Your task to perform on an android device: change text size in settings app Image 0: 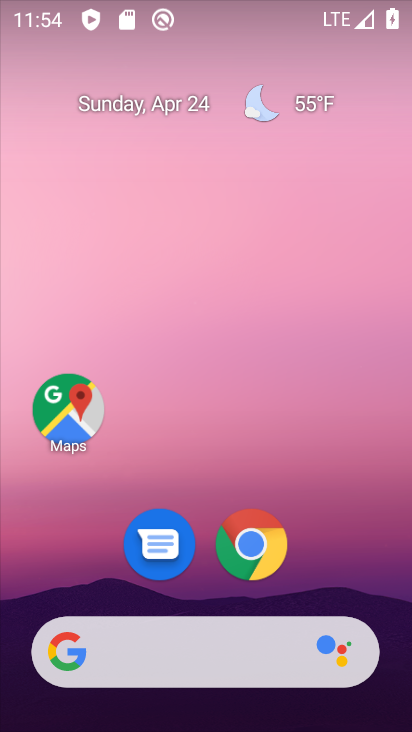
Step 0: drag from (329, 567) to (231, 211)
Your task to perform on an android device: change text size in settings app Image 1: 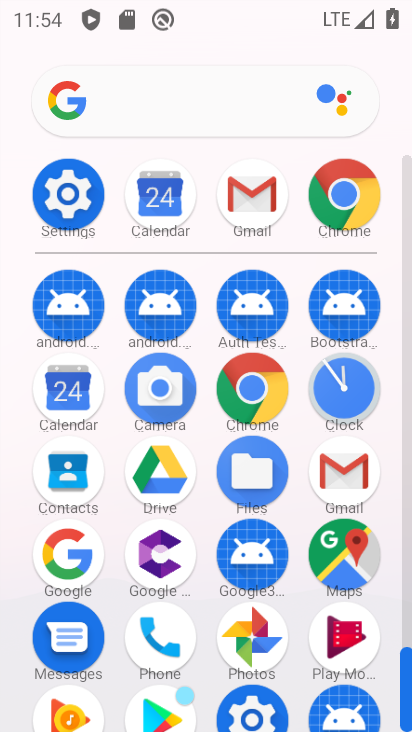
Step 1: click (102, 195)
Your task to perform on an android device: change text size in settings app Image 2: 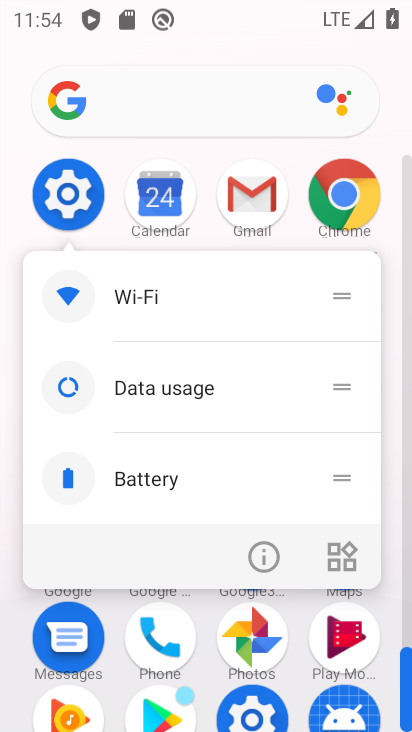
Step 2: click (66, 200)
Your task to perform on an android device: change text size in settings app Image 3: 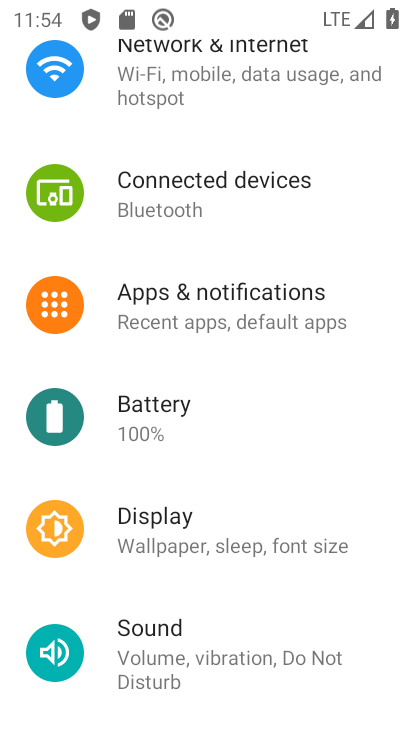
Step 3: click (211, 543)
Your task to perform on an android device: change text size in settings app Image 4: 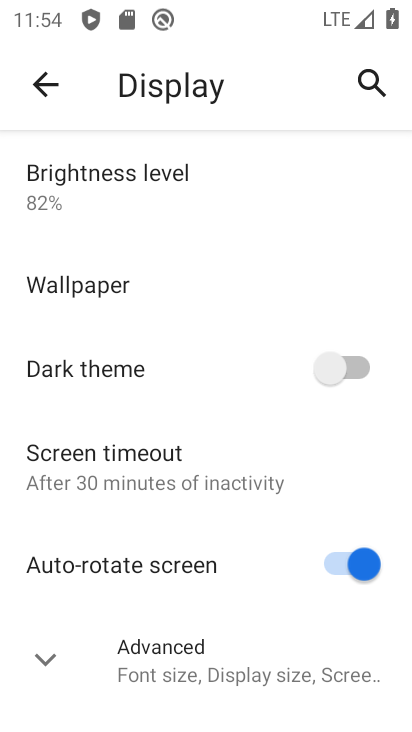
Step 4: click (205, 675)
Your task to perform on an android device: change text size in settings app Image 5: 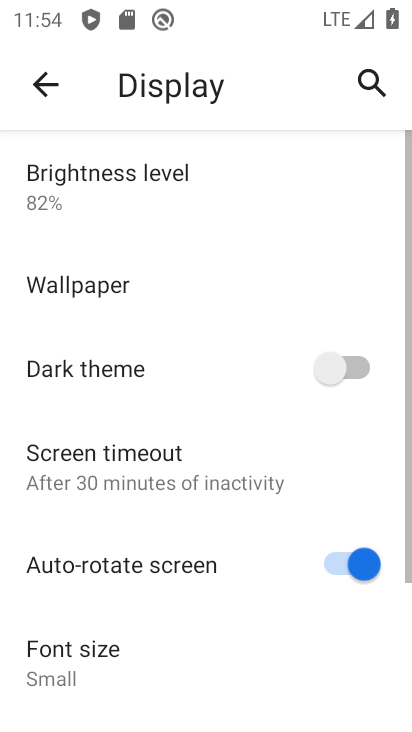
Step 5: drag from (160, 521) to (168, 297)
Your task to perform on an android device: change text size in settings app Image 6: 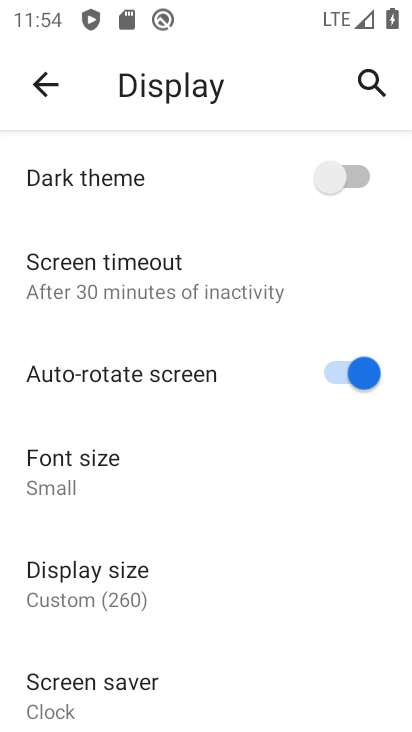
Step 6: click (55, 463)
Your task to perform on an android device: change text size in settings app Image 7: 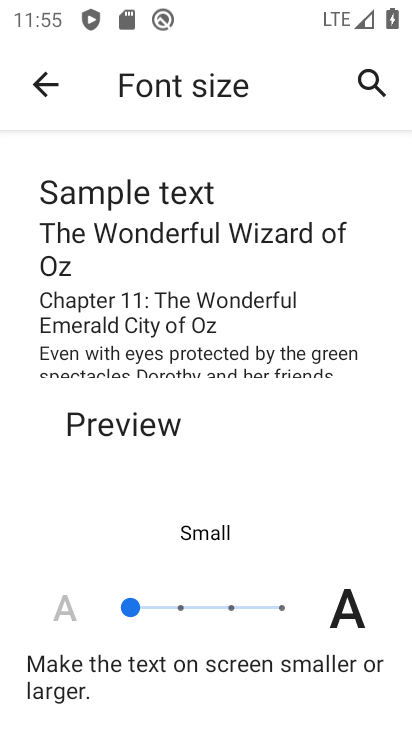
Step 7: click (283, 608)
Your task to perform on an android device: change text size in settings app Image 8: 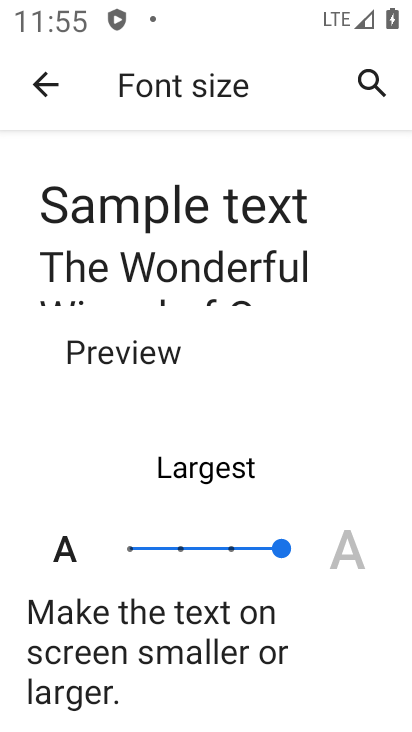
Step 8: task complete